Your task to perform on an android device: Is it going to rain today? Image 0: 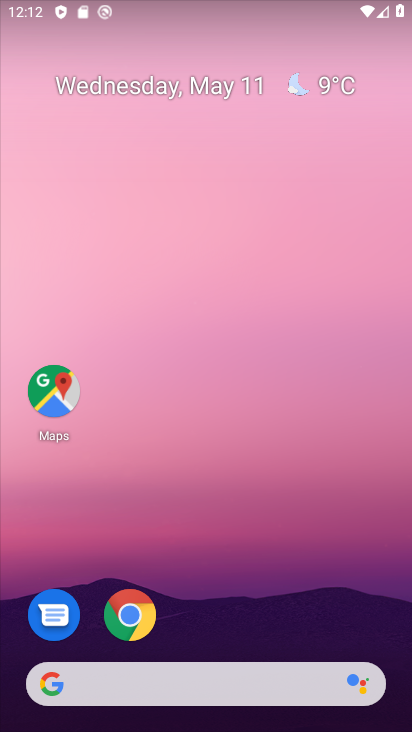
Step 0: click (279, 694)
Your task to perform on an android device: Is it going to rain today? Image 1: 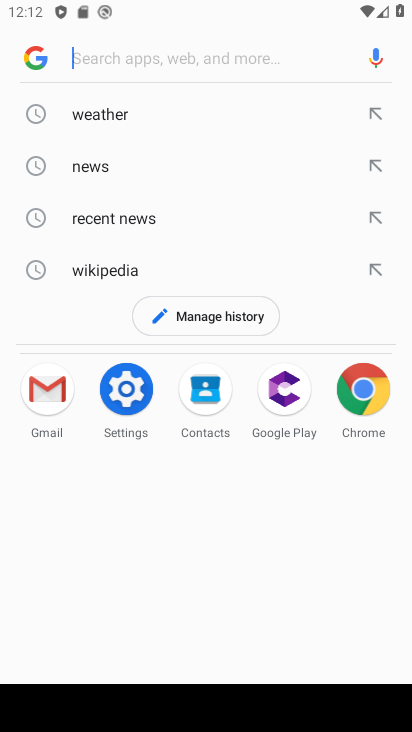
Step 1: click (169, 123)
Your task to perform on an android device: Is it going to rain today? Image 2: 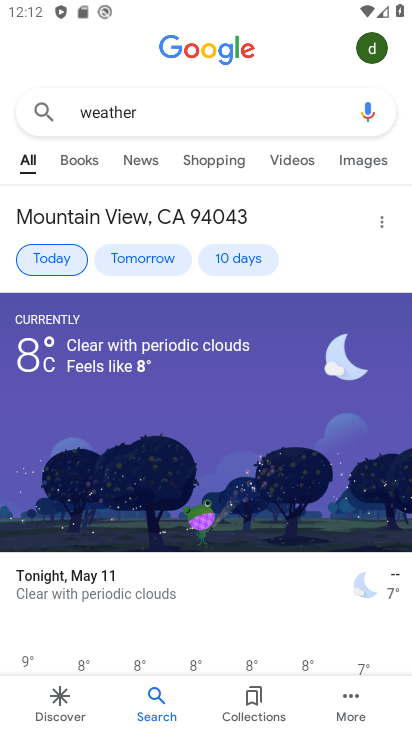
Step 2: task complete